Your task to perform on an android device: open chrome privacy settings Image 0: 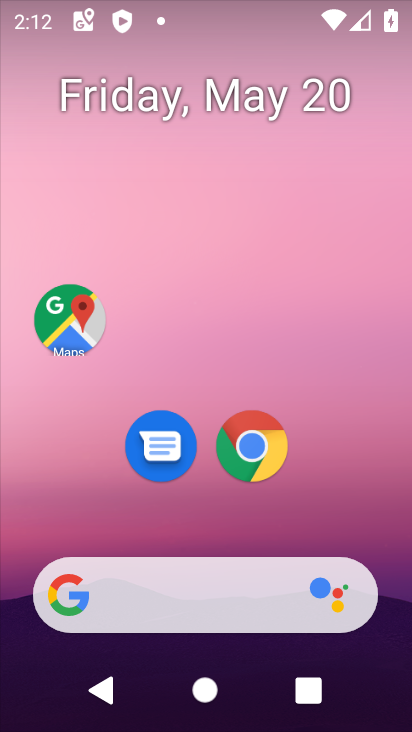
Step 0: click (257, 454)
Your task to perform on an android device: open chrome privacy settings Image 1: 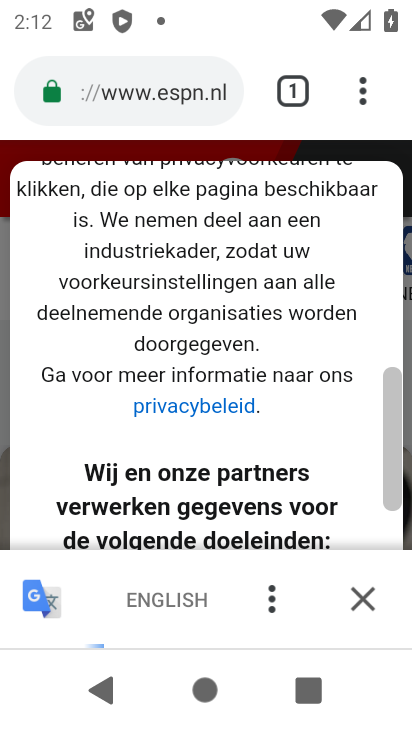
Step 1: click (369, 89)
Your task to perform on an android device: open chrome privacy settings Image 2: 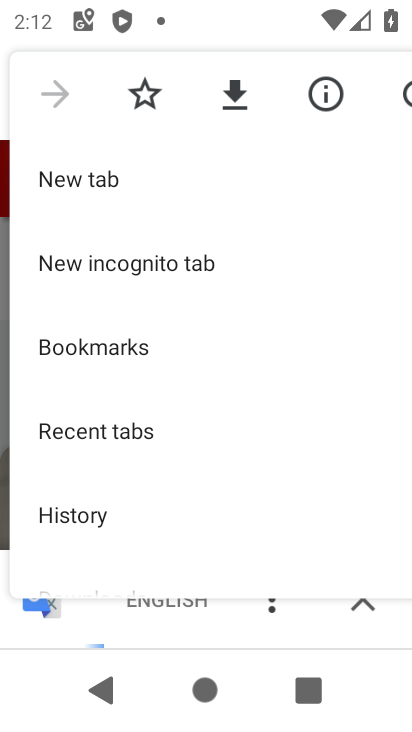
Step 2: drag from (212, 458) to (173, 231)
Your task to perform on an android device: open chrome privacy settings Image 3: 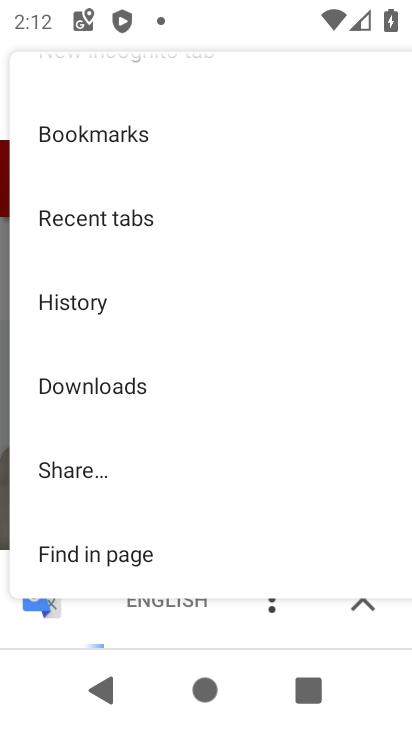
Step 3: drag from (169, 494) to (166, 193)
Your task to perform on an android device: open chrome privacy settings Image 4: 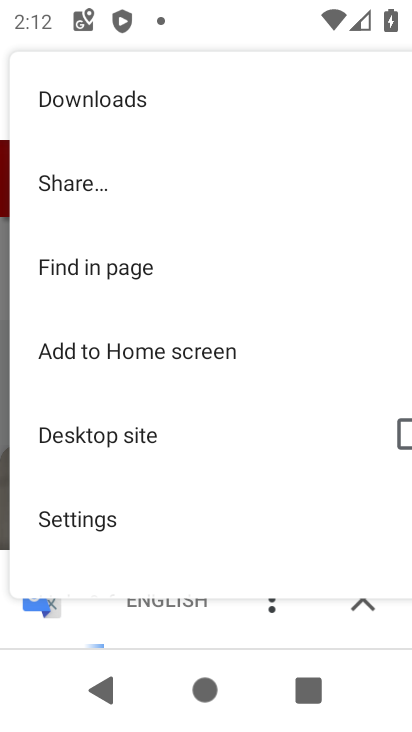
Step 4: drag from (181, 415) to (168, 200)
Your task to perform on an android device: open chrome privacy settings Image 5: 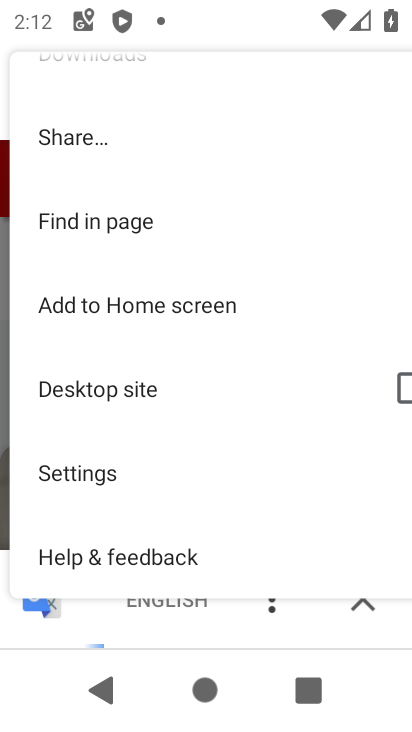
Step 5: click (73, 474)
Your task to perform on an android device: open chrome privacy settings Image 6: 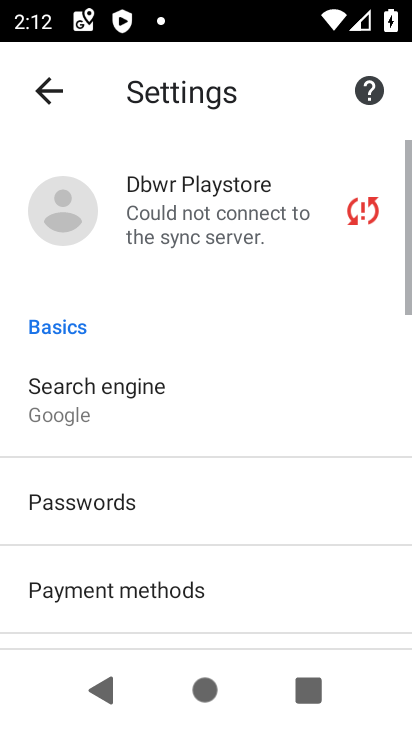
Step 6: drag from (175, 521) to (190, 140)
Your task to perform on an android device: open chrome privacy settings Image 7: 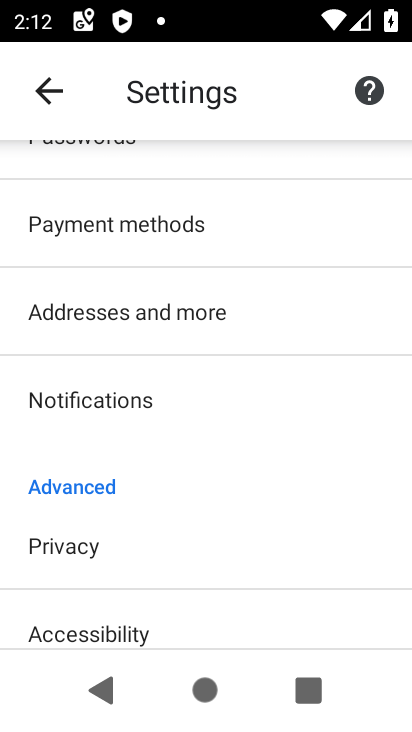
Step 7: click (80, 546)
Your task to perform on an android device: open chrome privacy settings Image 8: 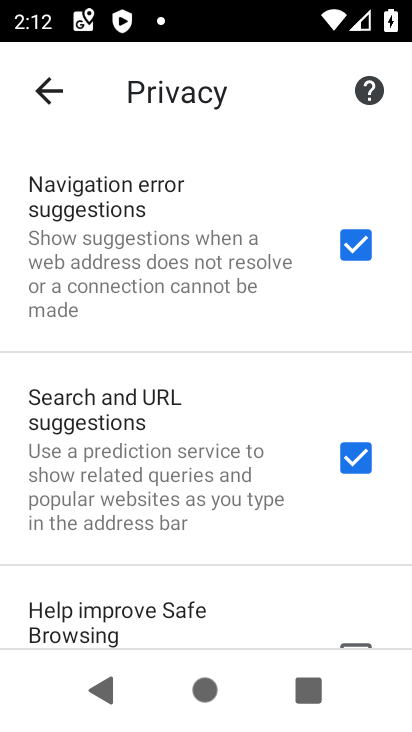
Step 8: task complete